Your task to perform on an android device: Open the stopwatch Image 0: 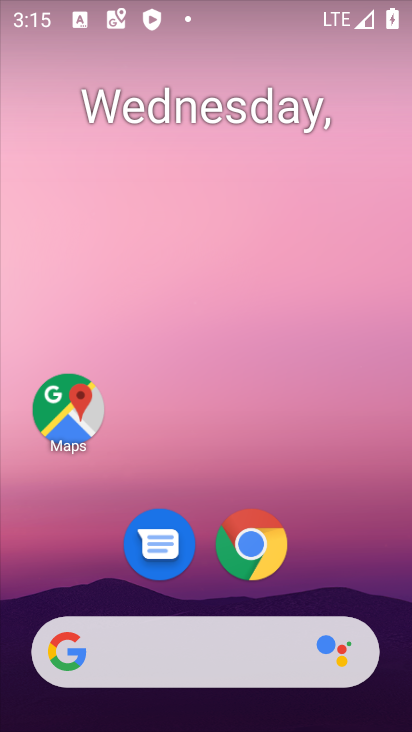
Step 0: drag from (397, 623) to (286, 6)
Your task to perform on an android device: Open the stopwatch Image 1: 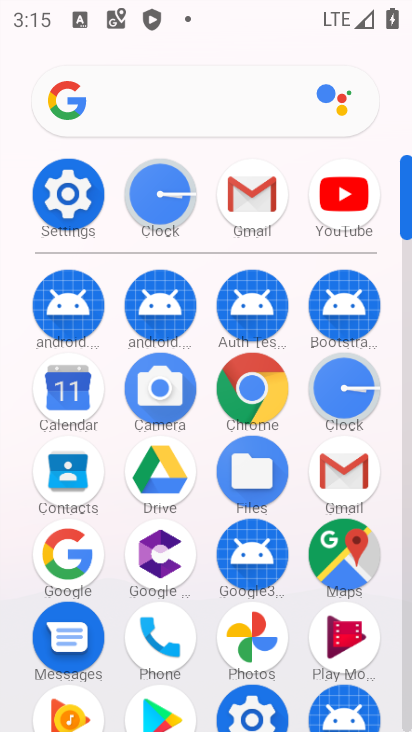
Step 1: click (406, 718)
Your task to perform on an android device: Open the stopwatch Image 2: 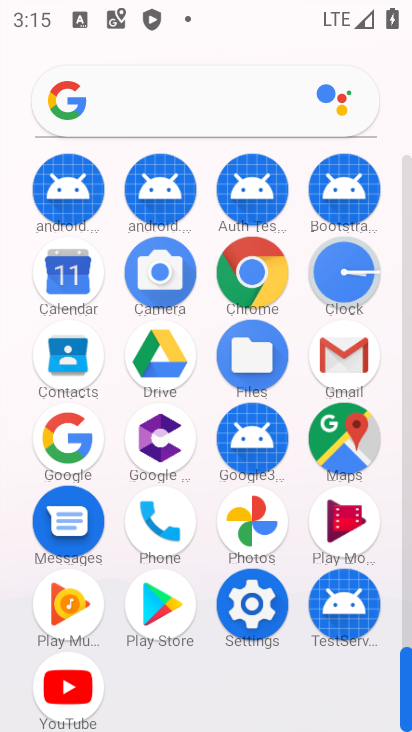
Step 2: click (342, 270)
Your task to perform on an android device: Open the stopwatch Image 3: 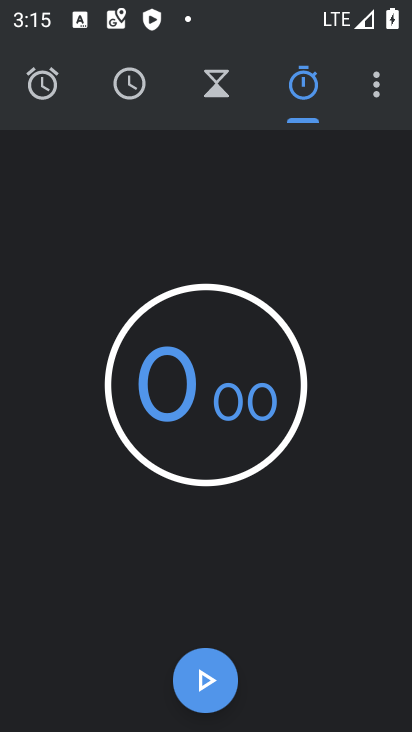
Step 3: task complete